Your task to perform on an android device: all mails in gmail Image 0: 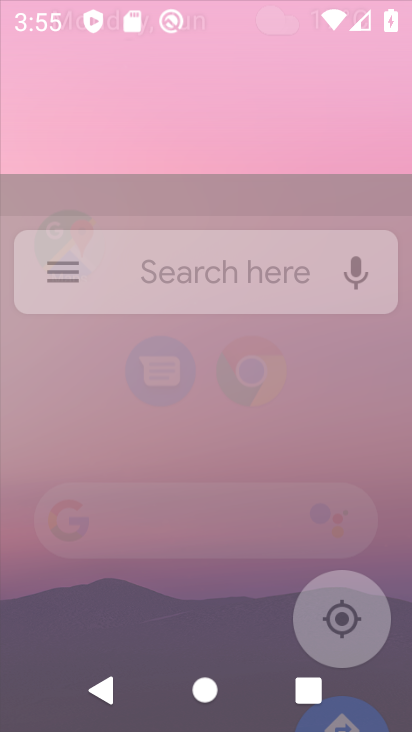
Step 0: click (184, 130)
Your task to perform on an android device: all mails in gmail Image 1: 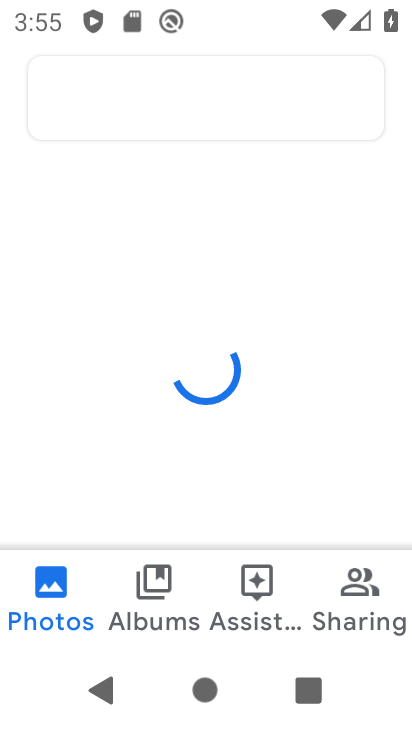
Step 1: press home button
Your task to perform on an android device: all mails in gmail Image 2: 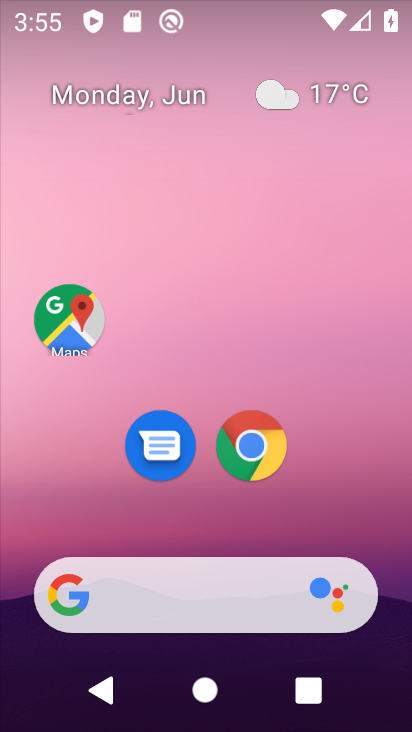
Step 2: drag from (212, 544) to (193, 70)
Your task to perform on an android device: all mails in gmail Image 3: 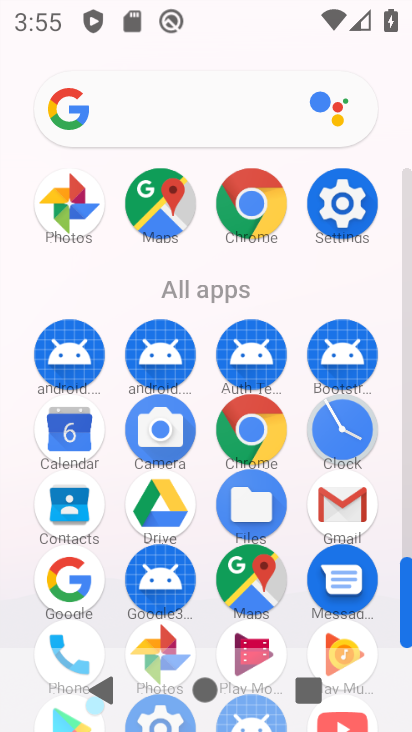
Step 3: click (333, 497)
Your task to perform on an android device: all mails in gmail Image 4: 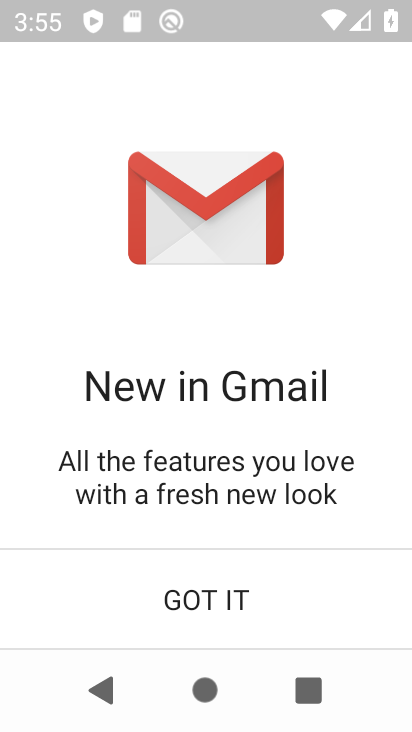
Step 4: click (194, 605)
Your task to perform on an android device: all mails in gmail Image 5: 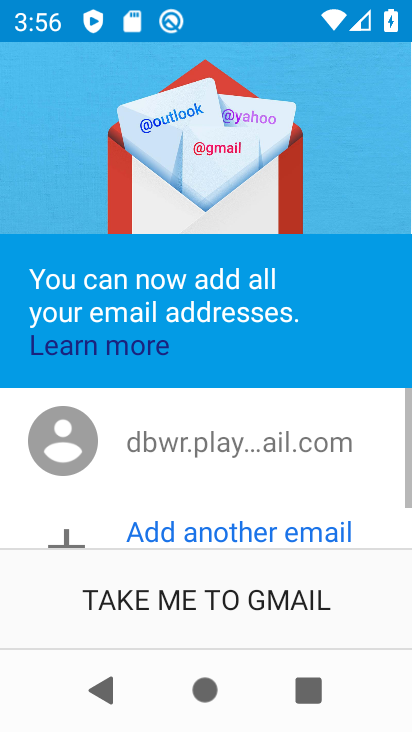
Step 5: click (195, 594)
Your task to perform on an android device: all mails in gmail Image 6: 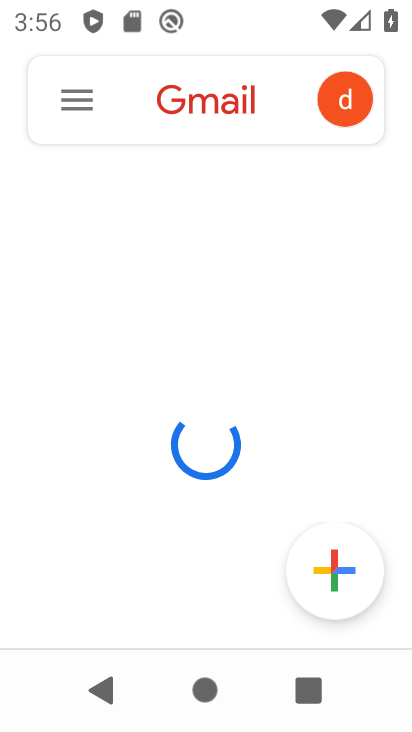
Step 6: click (68, 103)
Your task to perform on an android device: all mails in gmail Image 7: 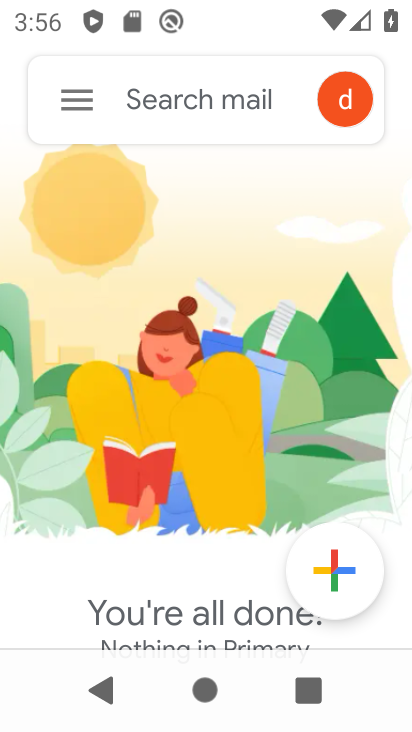
Step 7: drag from (214, 328) to (201, 482)
Your task to perform on an android device: all mails in gmail Image 8: 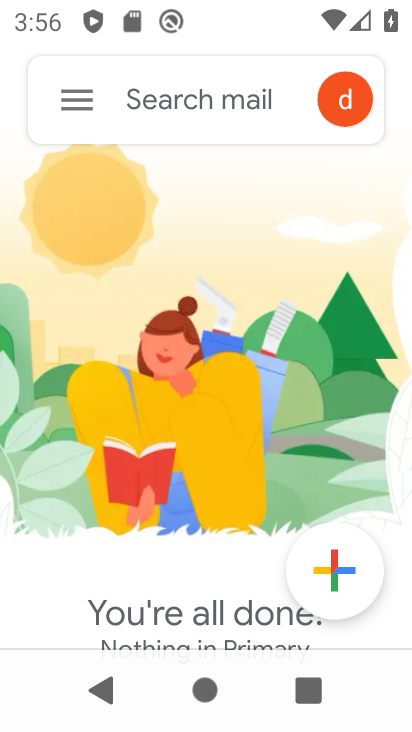
Step 8: click (75, 96)
Your task to perform on an android device: all mails in gmail Image 9: 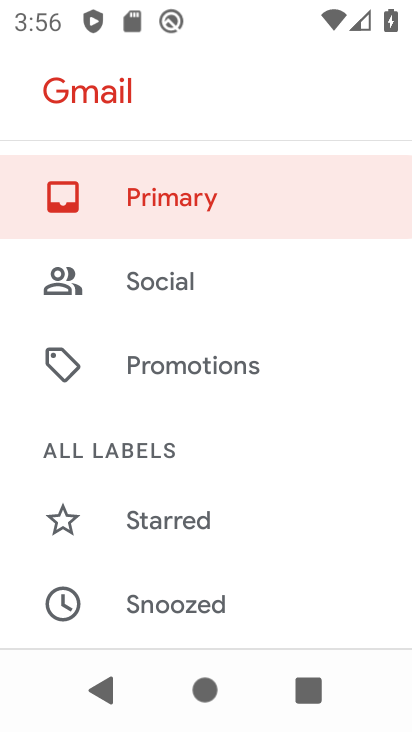
Step 9: drag from (230, 323) to (203, 609)
Your task to perform on an android device: all mails in gmail Image 10: 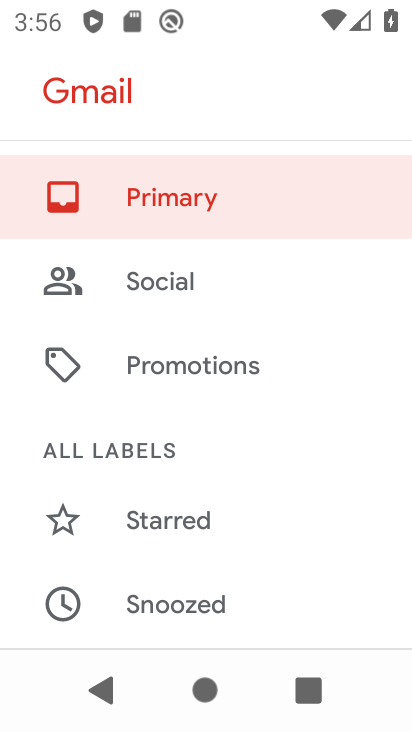
Step 10: drag from (219, 348) to (199, 575)
Your task to perform on an android device: all mails in gmail Image 11: 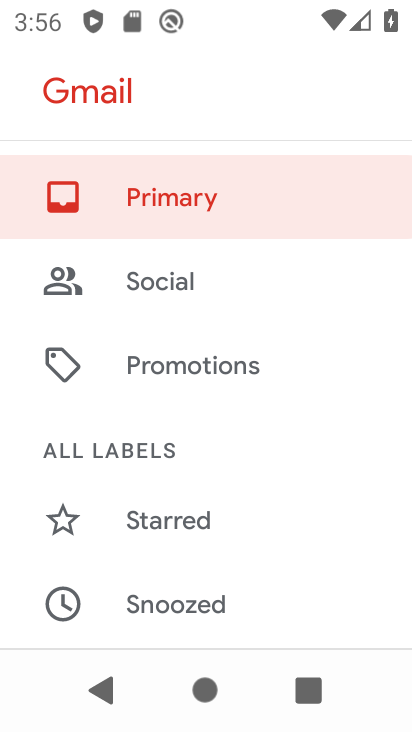
Step 11: drag from (193, 591) to (178, 330)
Your task to perform on an android device: all mails in gmail Image 12: 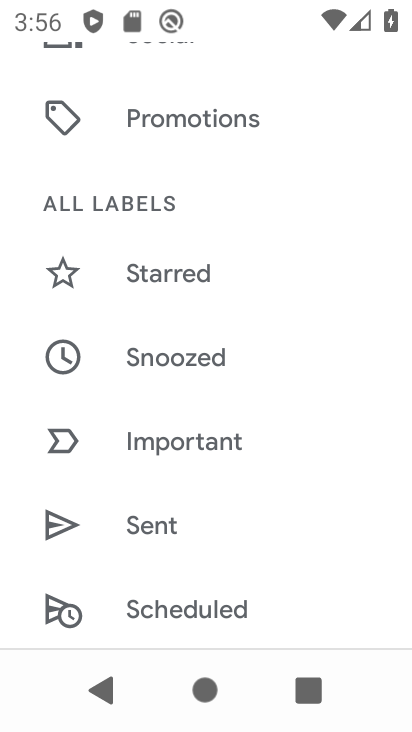
Step 12: drag from (184, 506) to (200, 164)
Your task to perform on an android device: all mails in gmail Image 13: 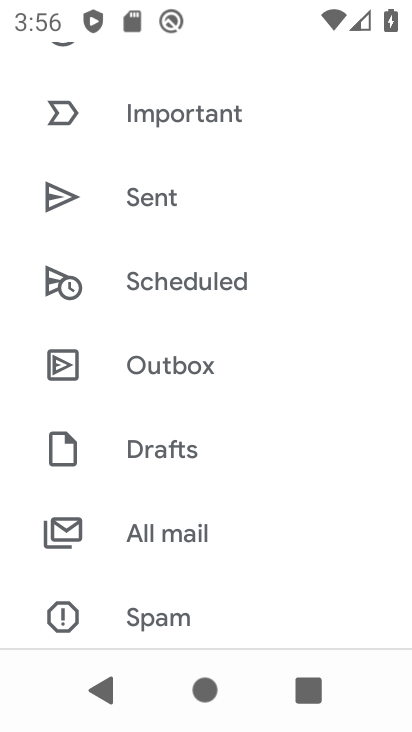
Step 13: click (189, 551)
Your task to perform on an android device: all mails in gmail Image 14: 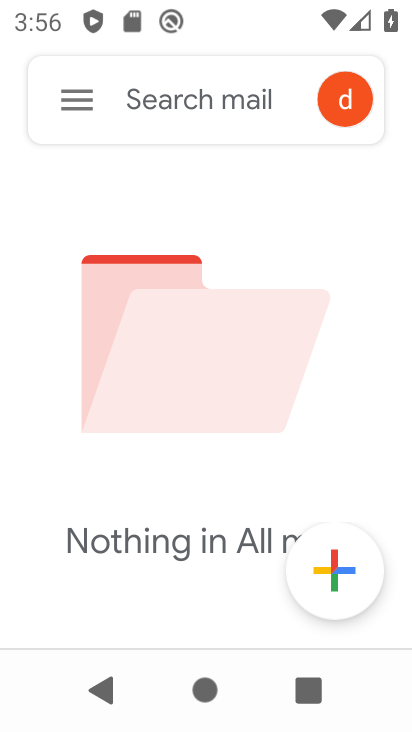
Step 14: task complete